Your task to perform on an android device: Go to network settings Image 0: 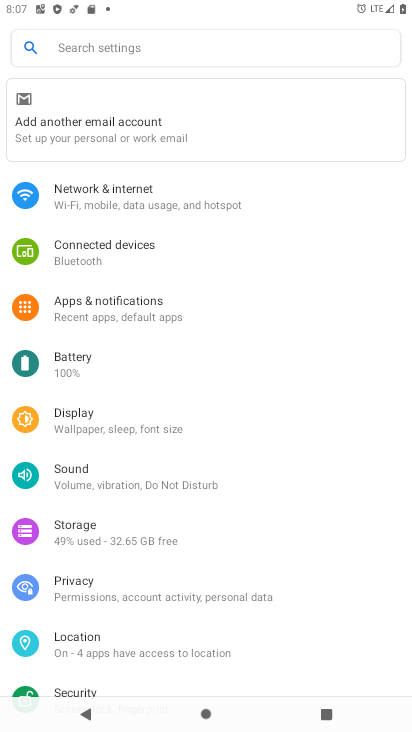
Step 0: click (115, 188)
Your task to perform on an android device: Go to network settings Image 1: 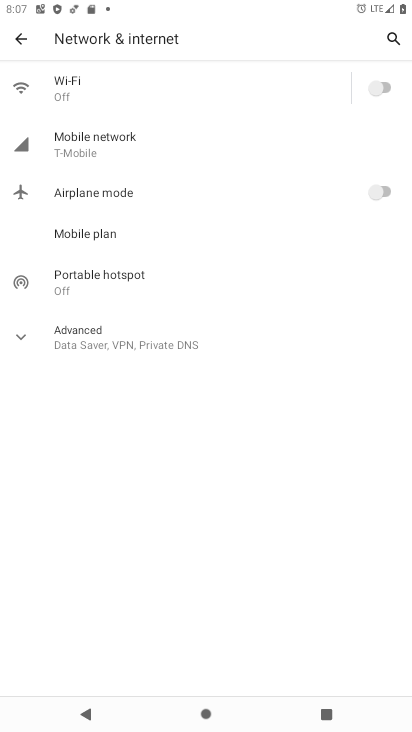
Step 1: task complete